Your task to perform on an android device: Clear the shopping cart on walmart. Search for corsair k70 on walmart, select the first entry, add it to the cart, then select checkout. Image 0: 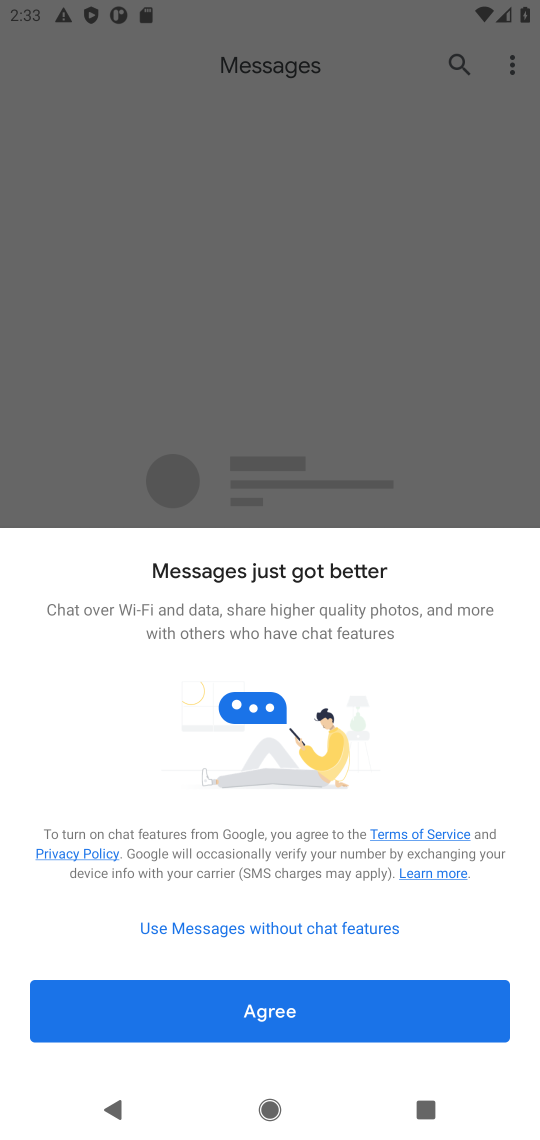
Step 0: press home button
Your task to perform on an android device: Clear the shopping cart on walmart. Search for corsair k70 on walmart, select the first entry, add it to the cart, then select checkout. Image 1: 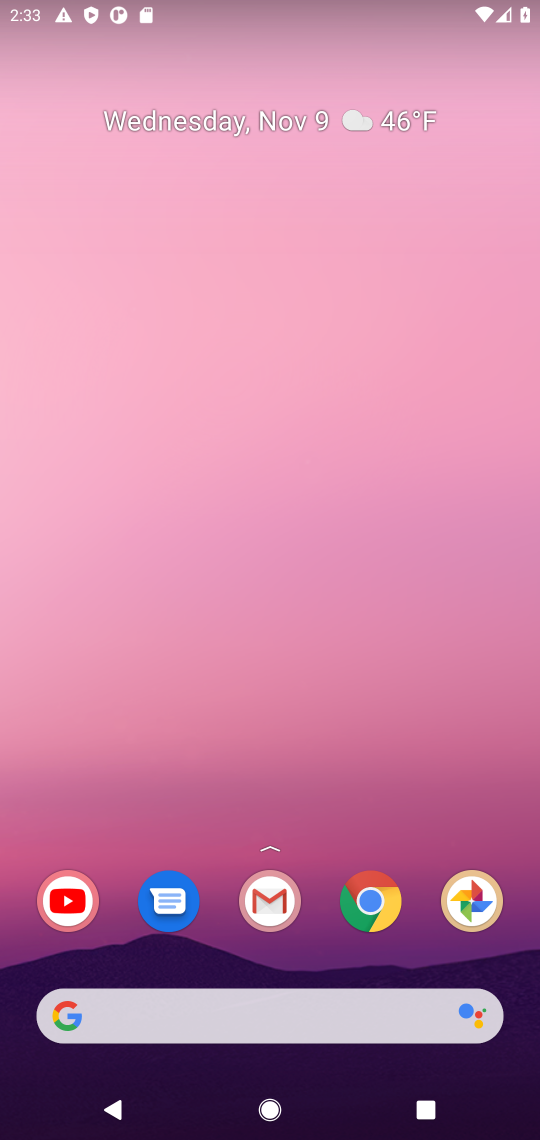
Step 1: click (371, 902)
Your task to perform on an android device: Clear the shopping cart on walmart. Search for corsair k70 on walmart, select the first entry, add it to the cart, then select checkout. Image 2: 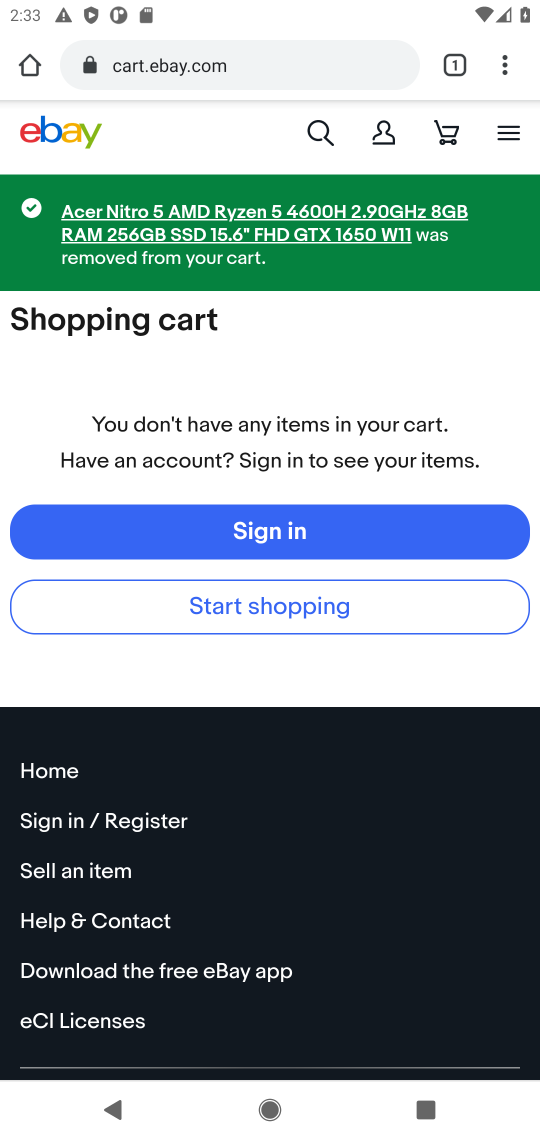
Step 2: click (297, 55)
Your task to perform on an android device: Clear the shopping cart on walmart. Search for corsair k70 on walmart, select the first entry, add it to the cart, then select checkout. Image 3: 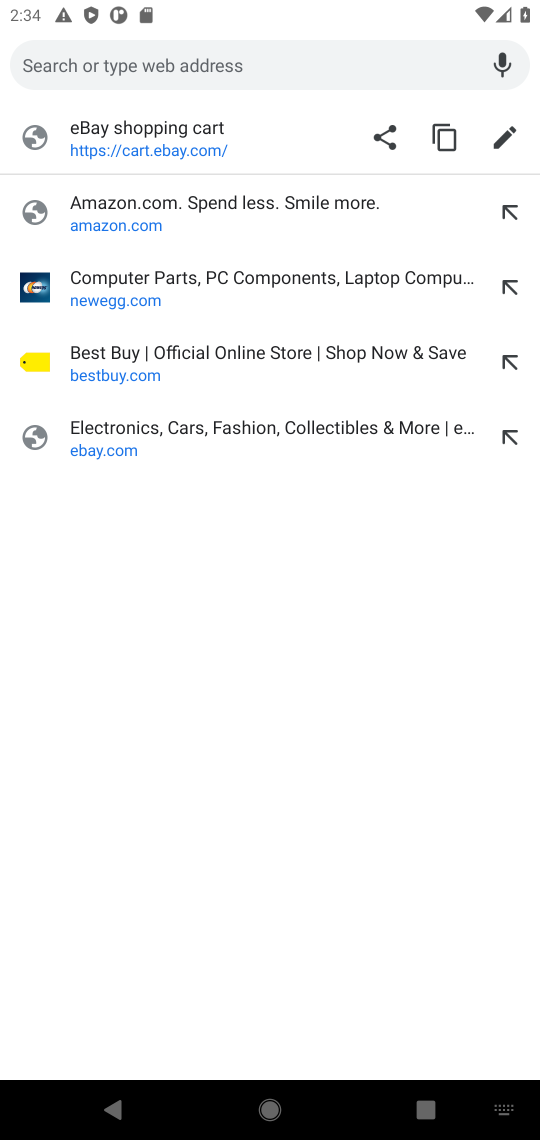
Step 3: type "walmart"
Your task to perform on an android device: Clear the shopping cart on walmart. Search for corsair k70 on walmart, select the first entry, add it to the cart, then select checkout. Image 4: 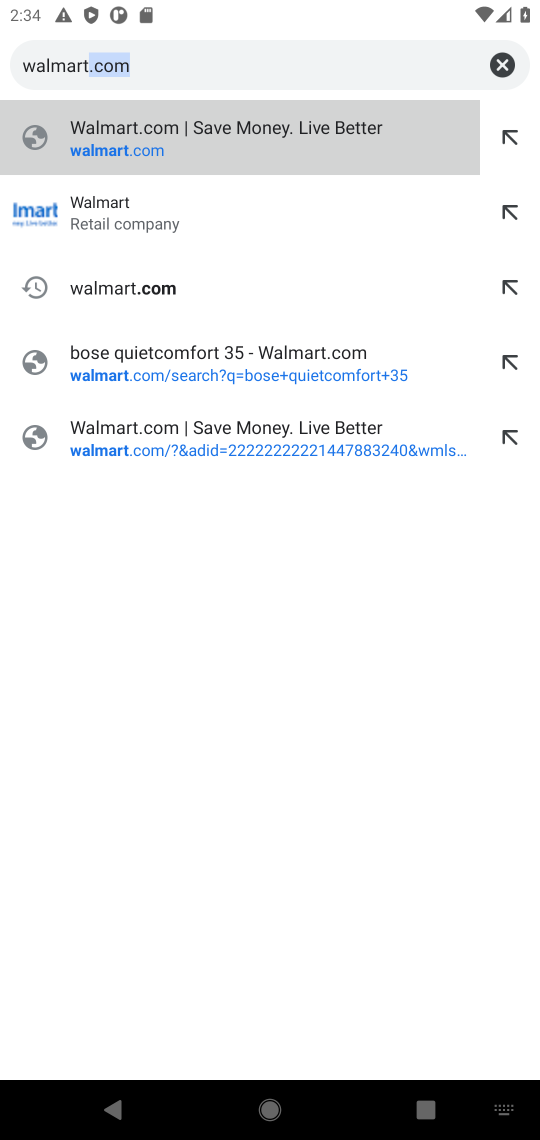
Step 4: press enter
Your task to perform on an android device: Clear the shopping cart on walmart. Search for corsair k70 on walmart, select the first entry, add it to the cart, then select checkout. Image 5: 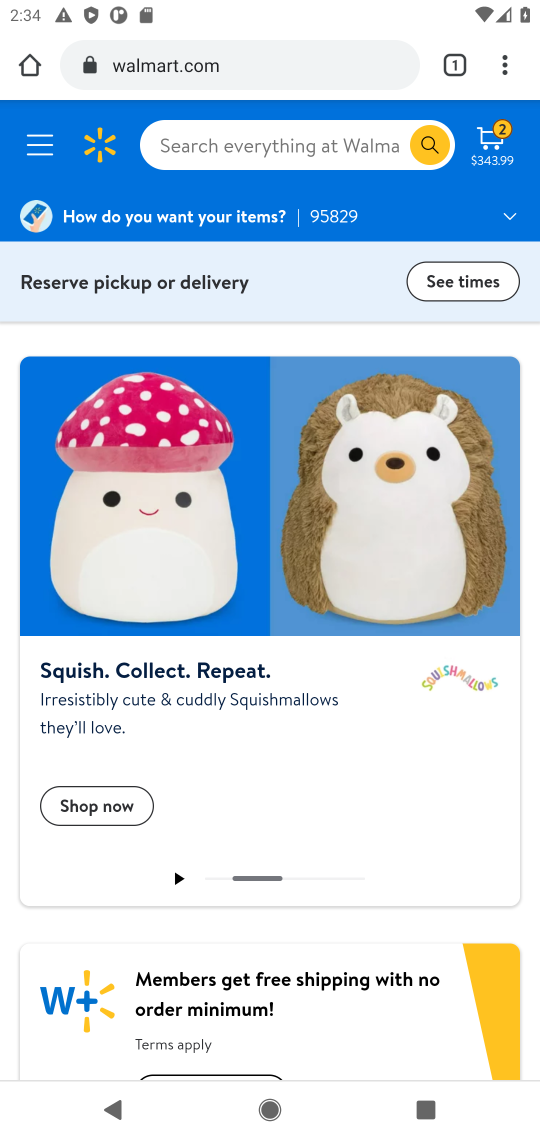
Step 5: click (353, 69)
Your task to perform on an android device: Clear the shopping cart on walmart. Search for corsair k70 on walmart, select the first entry, add it to the cart, then select checkout. Image 6: 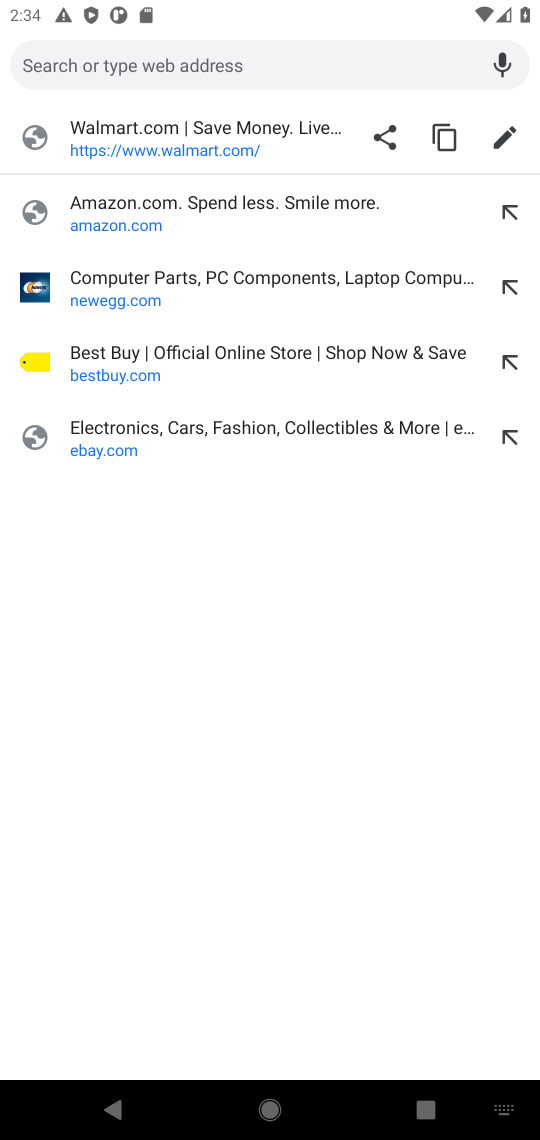
Step 6: type "walmart"
Your task to perform on an android device: Clear the shopping cart on walmart. Search for corsair k70 on walmart, select the first entry, add it to the cart, then select checkout. Image 7: 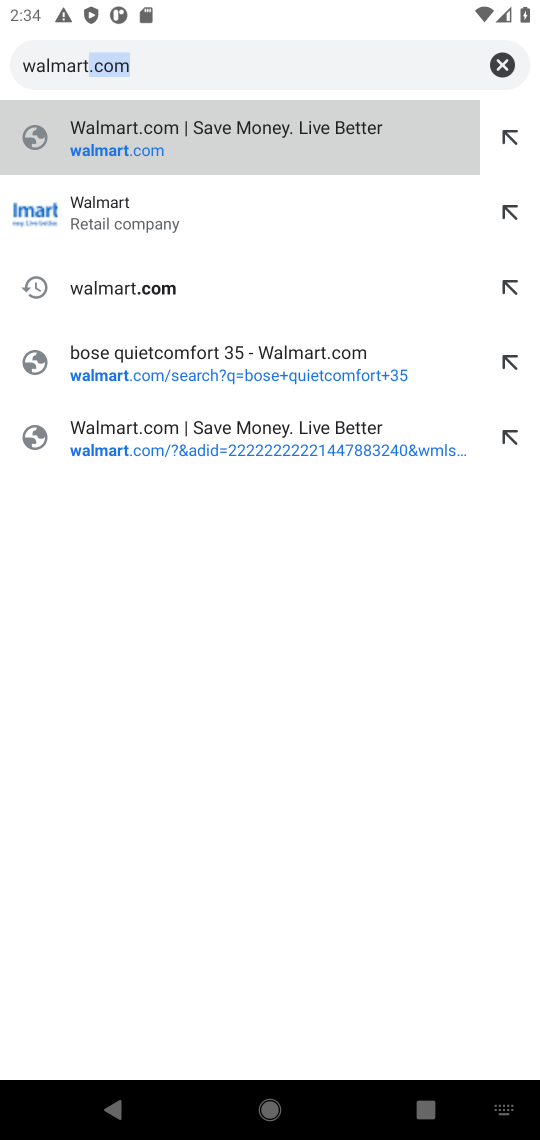
Step 7: click (268, 71)
Your task to perform on an android device: Clear the shopping cart on walmart. Search for corsair k70 on walmart, select the first entry, add it to the cart, then select checkout. Image 8: 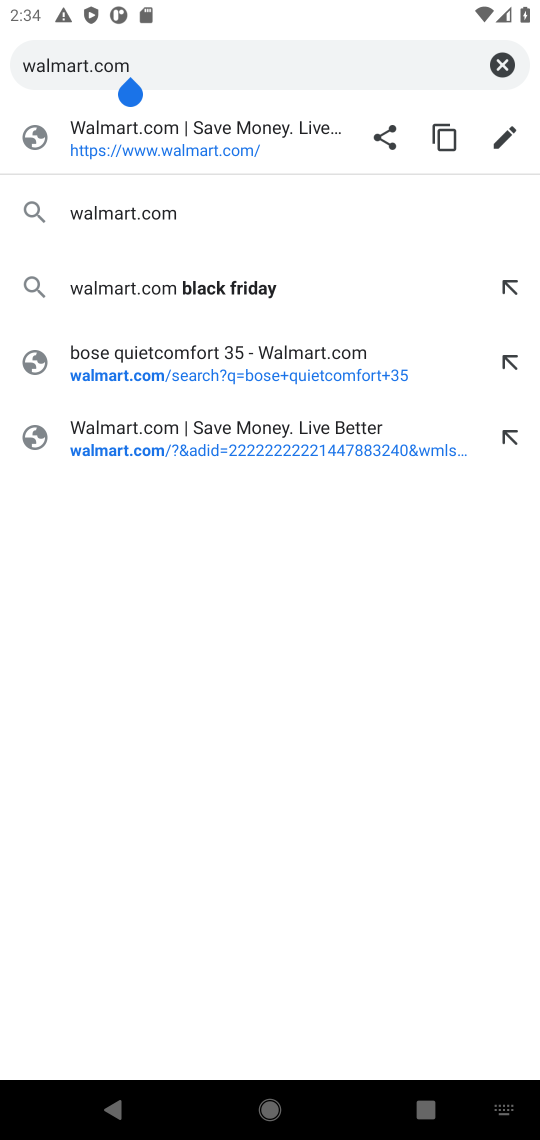
Step 8: click (144, 210)
Your task to perform on an android device: Clear the shopping cart on walmart. Search for corsair k70 on walmart, select the first entry, add it to the cart, then select checkout. Image 9: 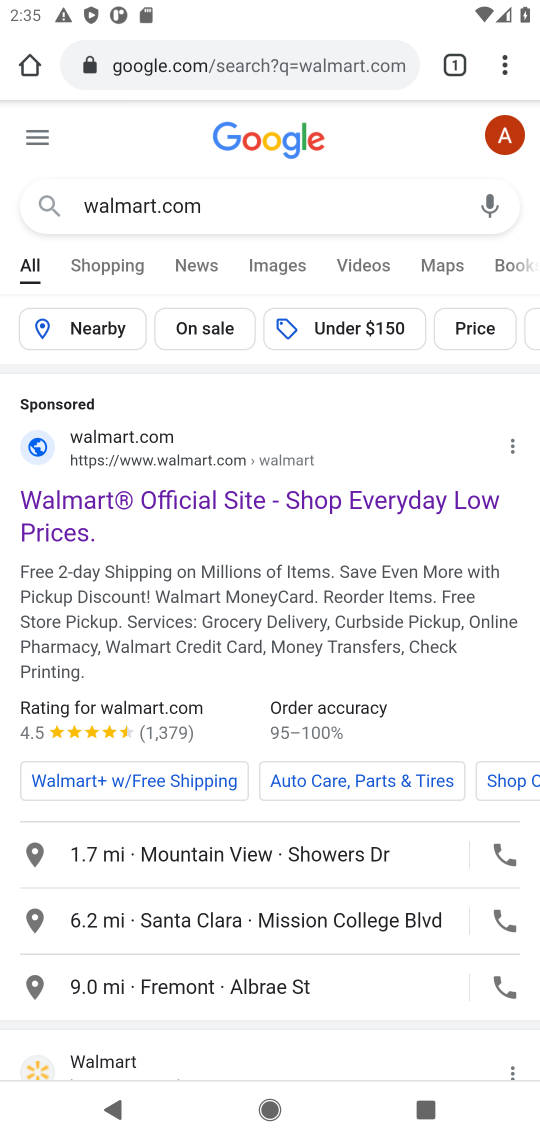
Step 9: click (120, 438)
Your task to perform on an android device: Clear the shopping cart on walmart. Search for corsair k70 on walmart, select the first entry, add it to the cart, then select checkout. Image 10: 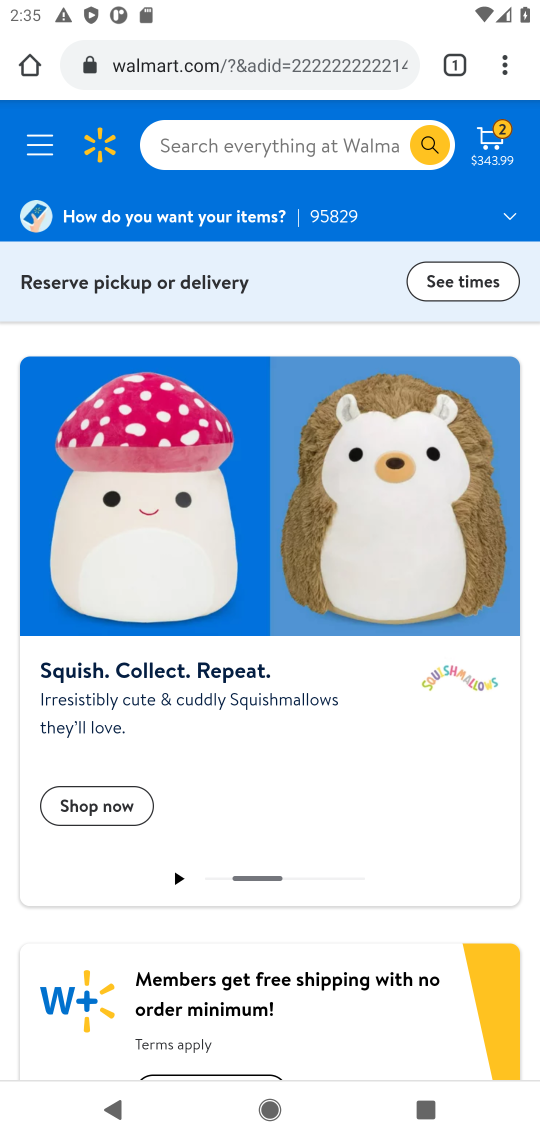
Step 10: click (513, 148)
Your task to perform on an android device: Clear the shopping cart on walmart. Search for corsair k70 on walmart, select the first entry, add it to the cart, then select checkout. Image 11: 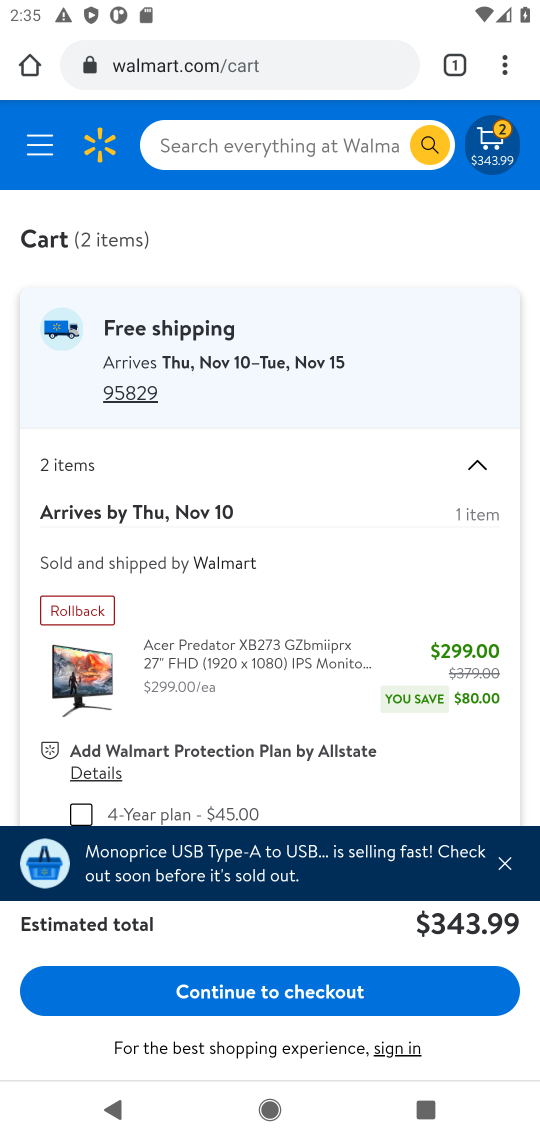
Step 11: drag from (348, 585) to (368, 387)
Your task to perform on an android device: Clear the shopping cart on walmart. Search for corsair k70 on walmart, select the first entry, add it to the cart, then select checkout. Image 12: 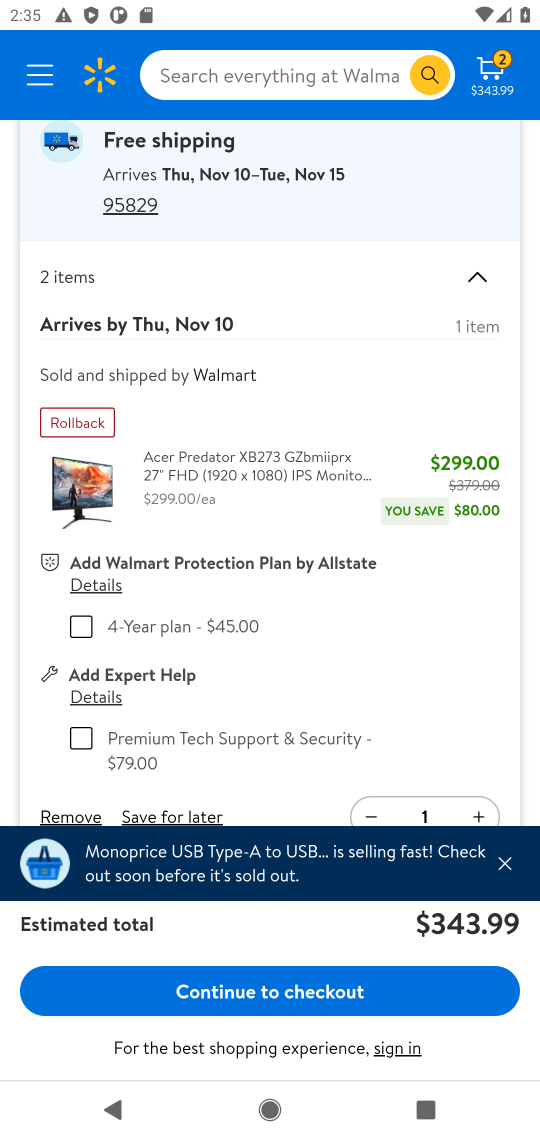
Step 12: drag from (264, 629) to (352, 426)
Your task to perform on an android device: Clear the shopping cart on walmart. Search for corsair k70 on walmart, select the first entry, add it to the cart, then select checkout. Image 13: 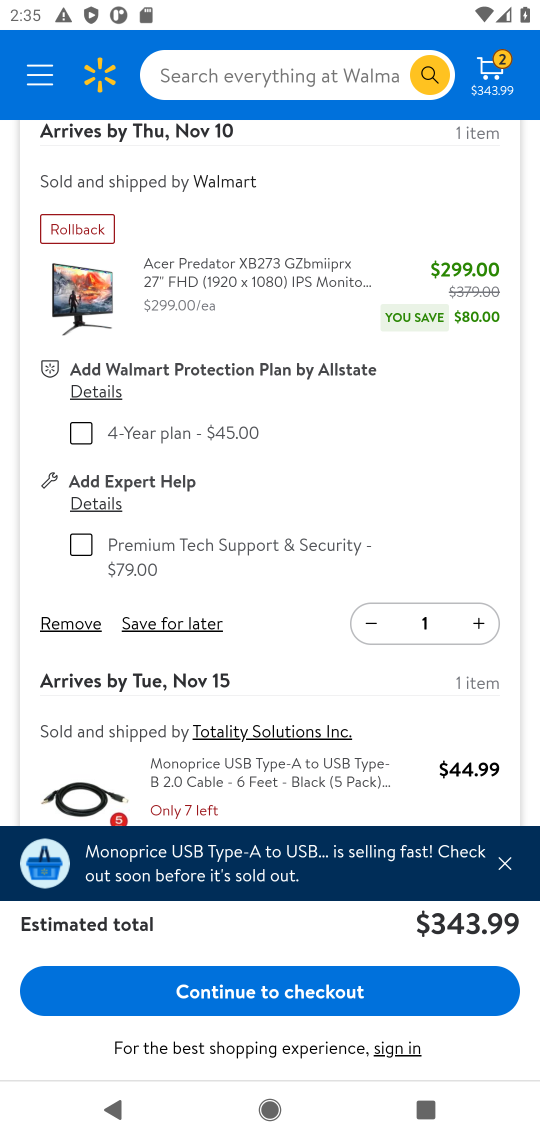
Step 13: click (89, 622)
Your task to perform on an android device: Clear the shopping cart on walmart. Search for corsair k70 on walmart, select the first entry, add it to the cart, then select checkout. Image 14: 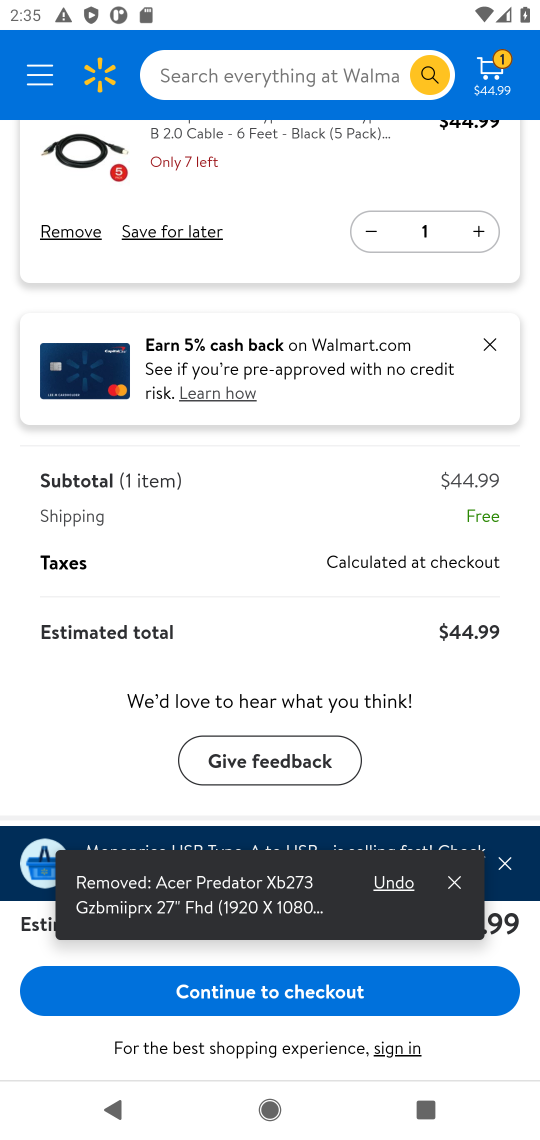
Step 14: drag from (201, 560) to (365, 263)
Your task to perform on an android device: Clear the shopping cart on walmart. Search for corsair k70 on walmart, select the first entry, add it to the cart, then select checkout. Image 15: 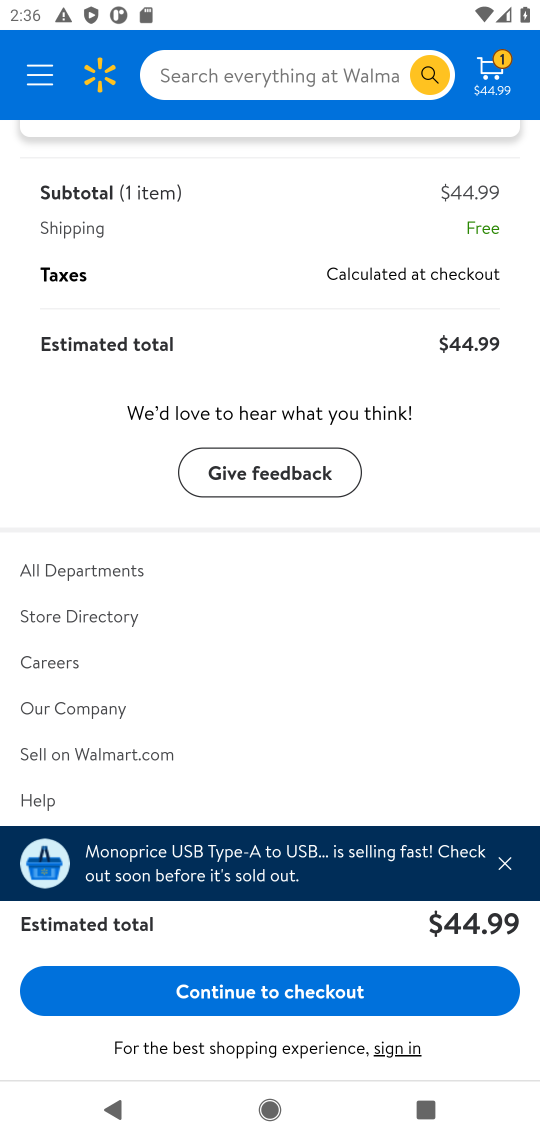
Step 15: drag from (325, 297) to (364, 596)
Your task to perform on an android device: Clear the shopping cart on walmart. Search for corsair k70 on walmart, select the first entry, add it to the cart, then select checkout. Image 16: 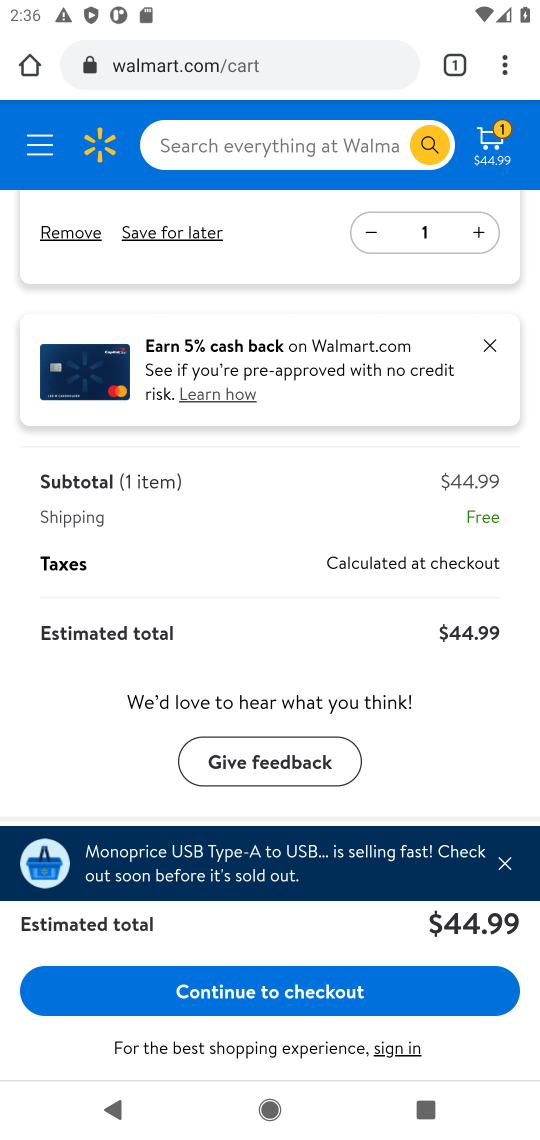
Step 16: click (502, 158)
Your task to perform on an android device: Clear the shopping cart on walmart. Search for corsair k70 on walmart, select the first entry, add it to the cart, then select checkout. Image 17: 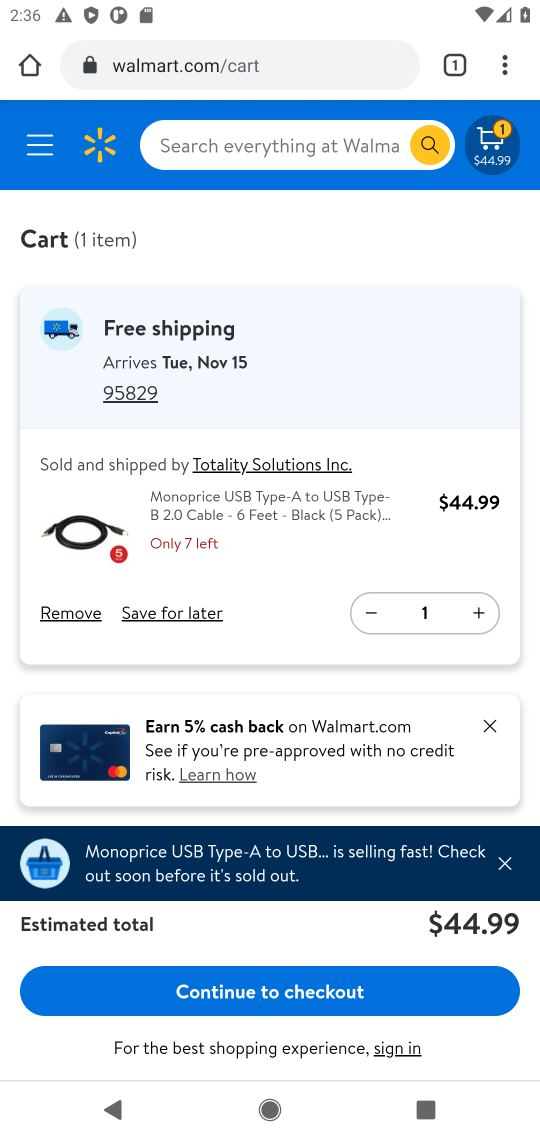
Step 17: click (45, 600)
Your task to perform on an android device: Clear the shopping cart on walmart. Search for corsair k70 on walmart, select the first entry, add it to the cart, then select checkout. Image 18: 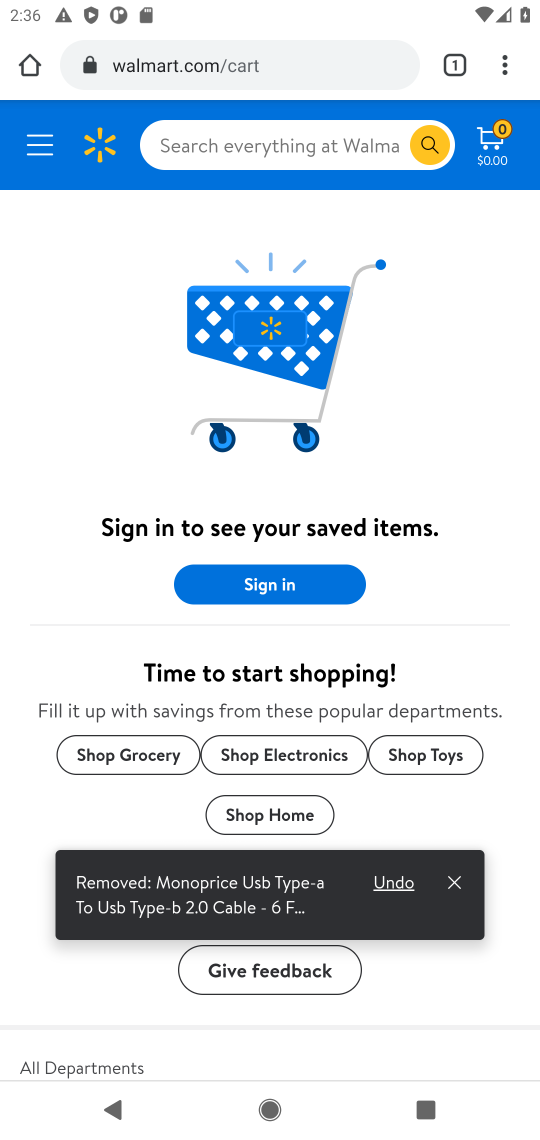
Step 18: click (322, 145)
Your task to perform on an android device: Clear the shopping cart on walmart. Search for corsair k70 on walmart, select the first entry, add it to the cart, then select checkout. Image 19: 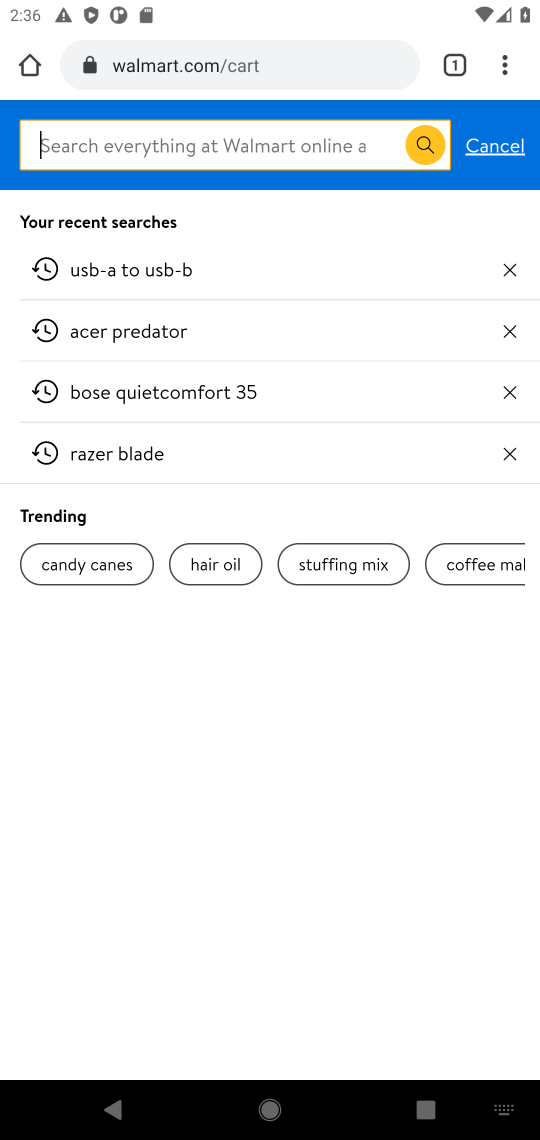
Step 19: type "corsair k70"
Your task to perform on an android device: Clear the shopping cart on walmart. Search for corsair k70 on walmart, select the first entry, add it to the cart, then select checkout. Image 20: 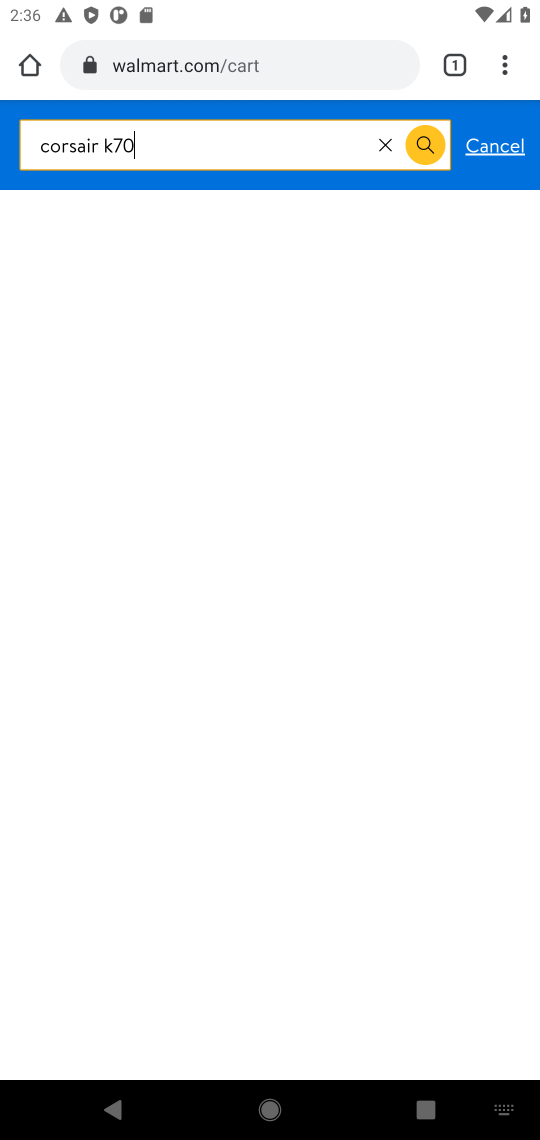
Step 20: press enter
Your task to perform on an android device: Clear the shopping cart on walmart. Search for corsair k70 on walmart, select the first entry, add it to the cart, then select checkout. Image 21: 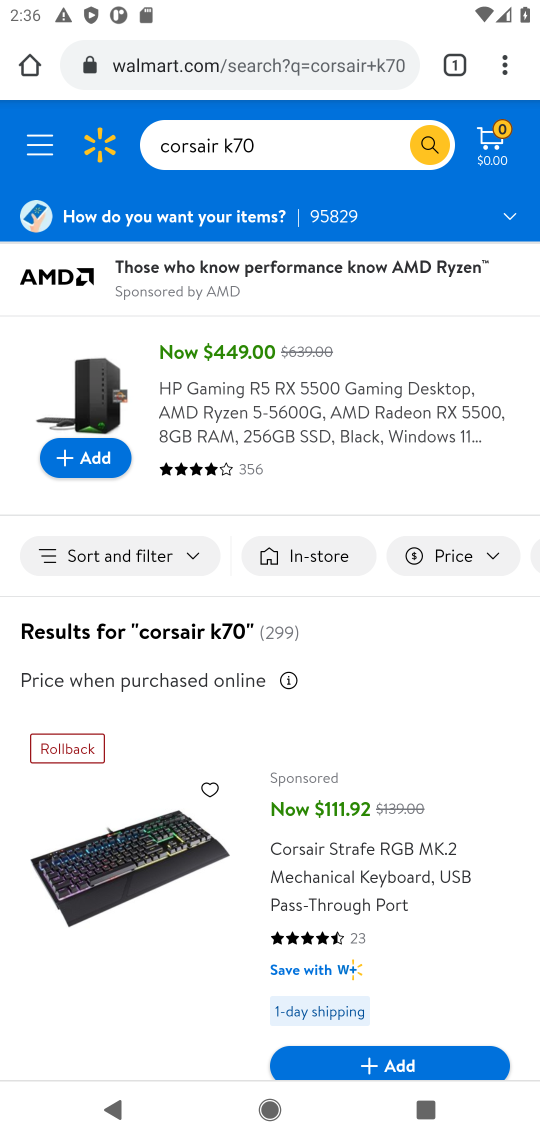
Step 21: drag from (304, 827) to (394, 427)
Your task to perform on an android device: Clear the shopping cart on walmart. Search for corsair k70 on walmart, select the first entry, add it to the cart, then select checkout. Image 22: 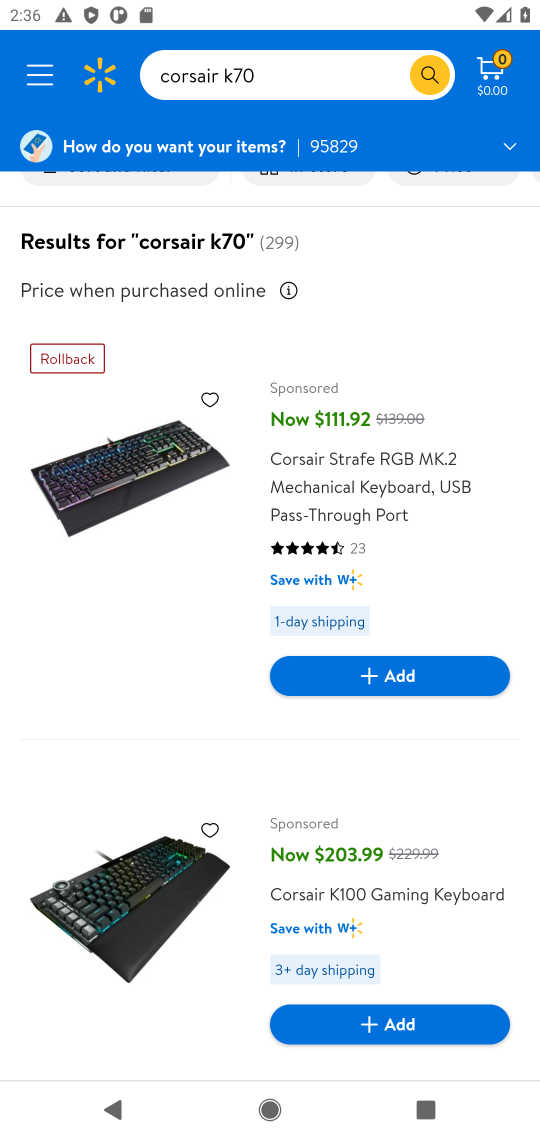
Step 22: click (163, 900)
Your task to perform on an android device: Clear the shopping cart on walmart. Search for corsair k70 on walmart, select the first entry, add it to the cart, then select checkout. Image 23: 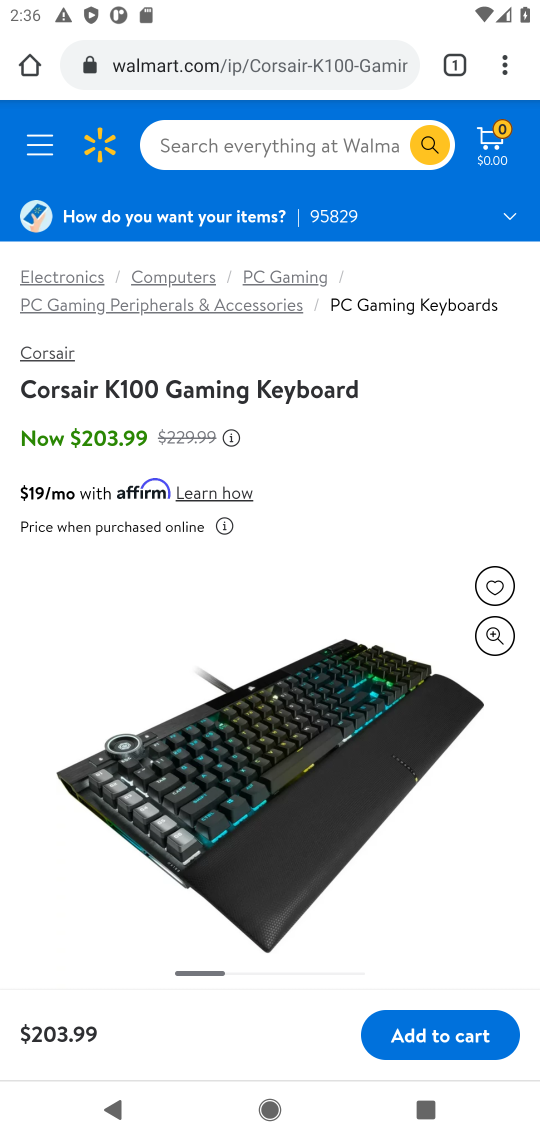
Step 23: press back button
Your task to perform on an android device: Clear the shopping cart on walmart. Search for corsair k70 on walmart, select the first entry, add it to the cart, then select checkout. Image 24: 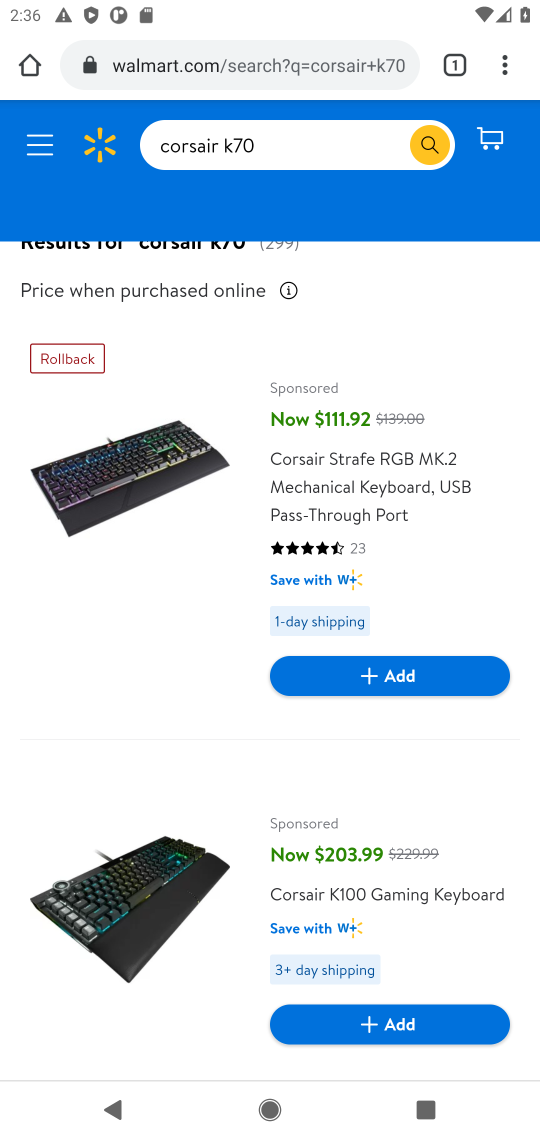
Step 24: drag from (446, 743) to (445, 242)
Your task to perform on an android device: Clear the shopping cart on walmart. Search for corsair k70 on walmart, select the first entry, add it to the cart, then select checkout. Image 25: 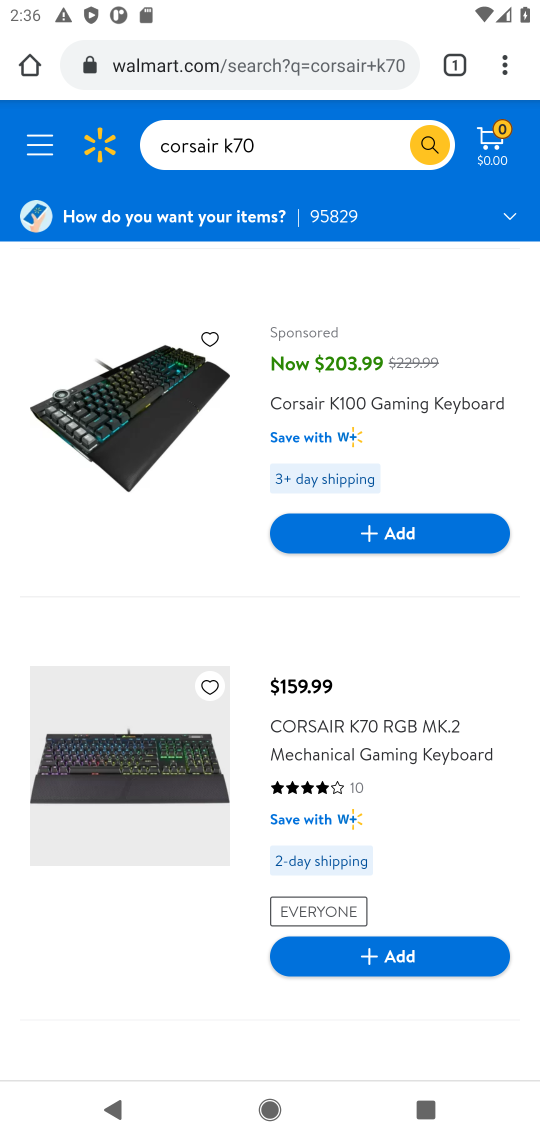
Step 25: click (120, 743)
Your task to perform on an android device: Clear the shopping cart on walmart. Search for corsair k70 on walmart, select the first entry, add it to the cart, then select checkout. Image 26: 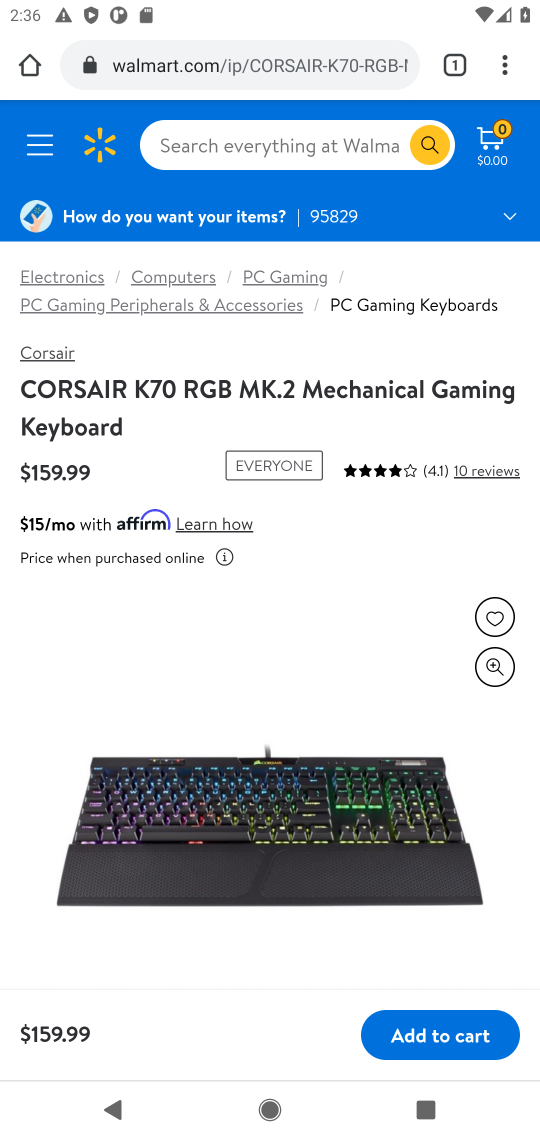
Step 26: click (452, 1023)
Your task to perform on an android device: Clear the shopping cart on walmart. Search for corsair k70 on walmart, select the first entry, add it to the cart, then select checkout. Image 27: 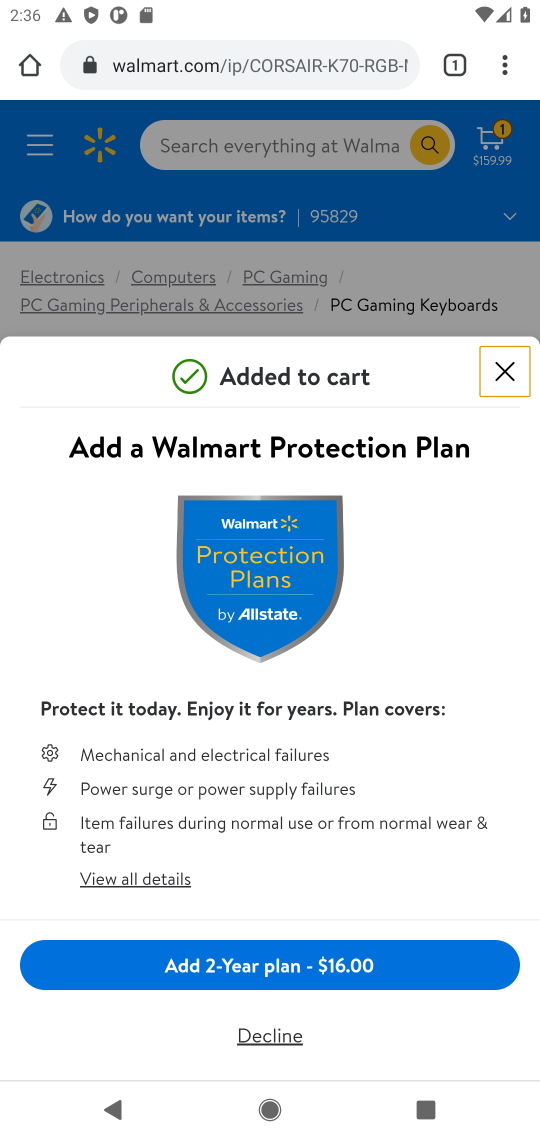
Step 27: click (517, 368)
Your task to perform on an android device: Clear the shopping cart on walmart. Search for corsair k70 on walmart, select the first entry, add it to the cart, then select checkout. Image 28: 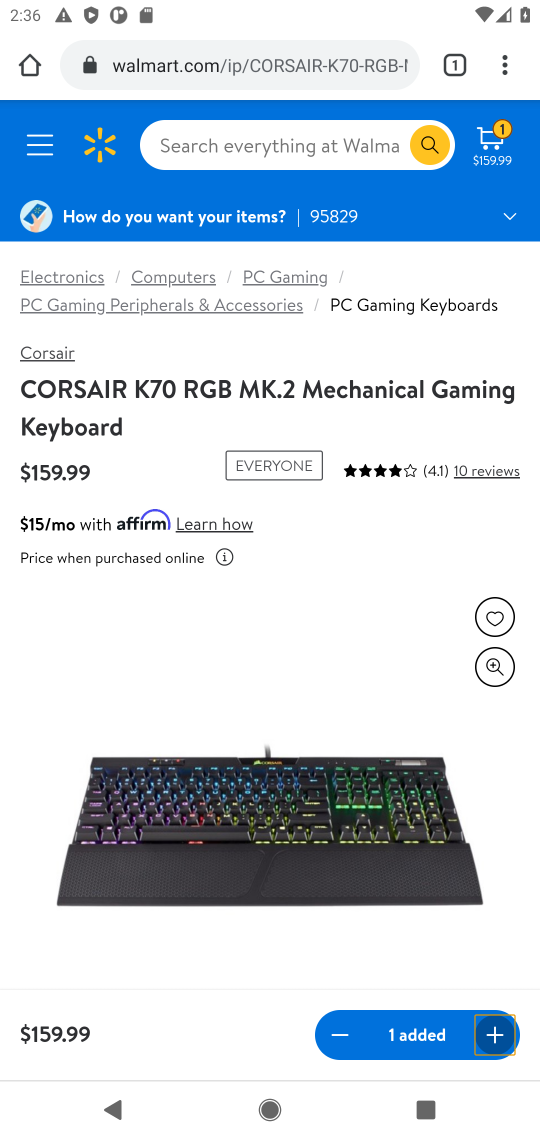
Step 28: click (494, 131)
Your task to perform on an android device: Clear the shopping cart on walmart. Search for corsair k70 on walmart, select the first entry, add it to the cart, then select checkout. Image 29: 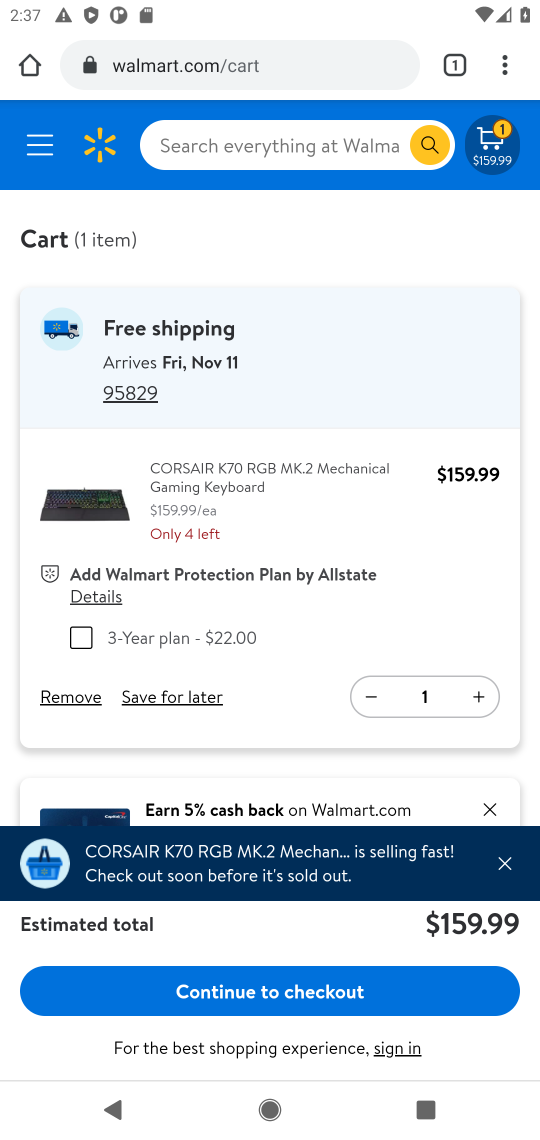
Step 29: click (353, 994)
Your task to perform on an android device: Clear the shopping cart on walmart. Search for corsair k70 on walmart, select the first entry, add it to the cart, then select checkout. Image 30: 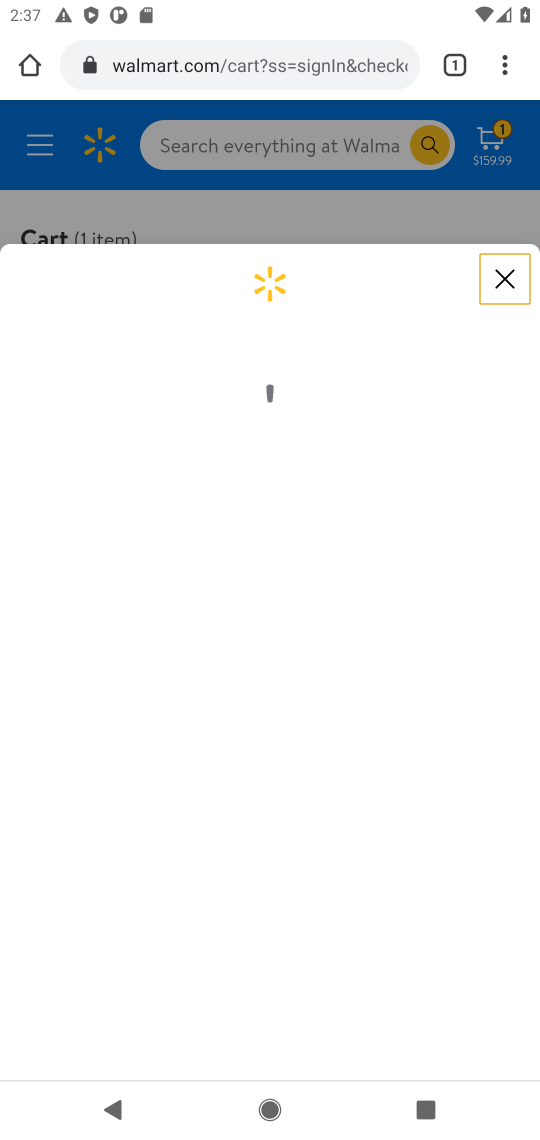
Step 30: task complete